Your task to perform on an android device: Go to sound settings Image 0: 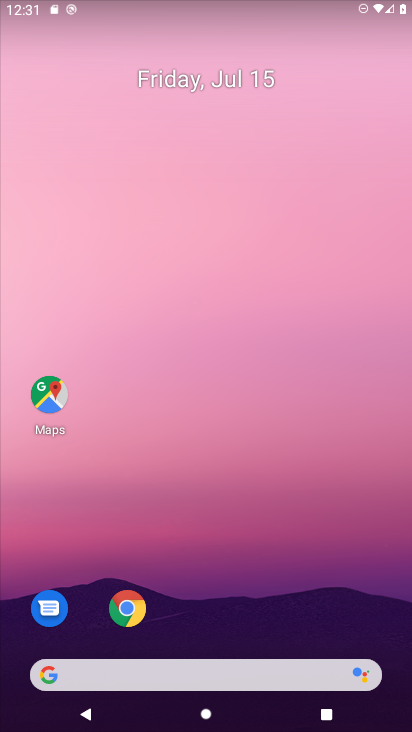
Step 0: drag from (280, 675) to (320, 59)
Your task to perform on an android device: Go to sound settings Image 1: 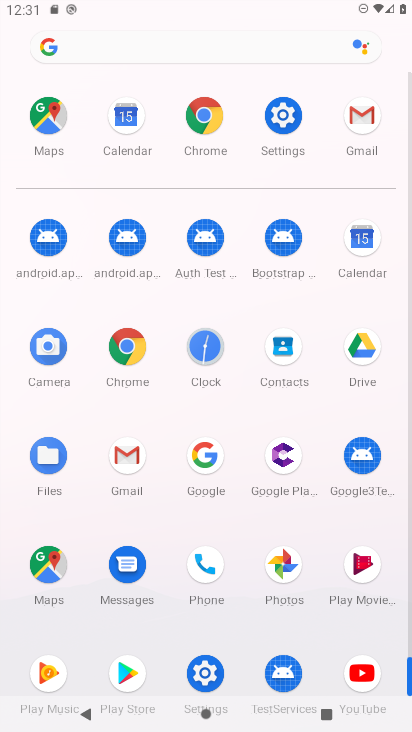
Step 1: click (279, 106)
Your task to perform on an android device: Go to sound settings Image 2: 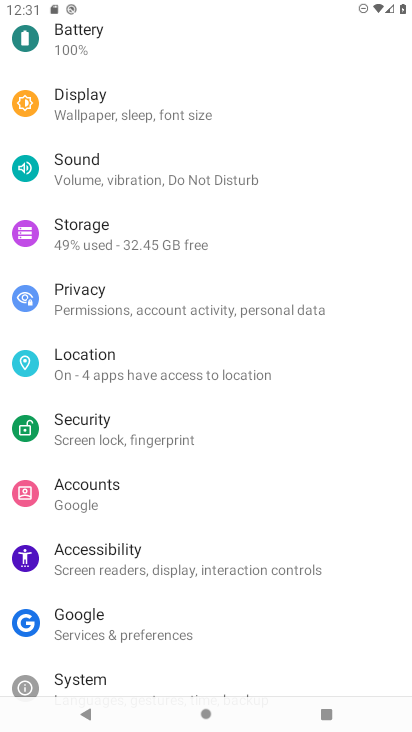
Step 2: click (142, 182)
Your task to perform on an android device: Go to sound settings Image 3: 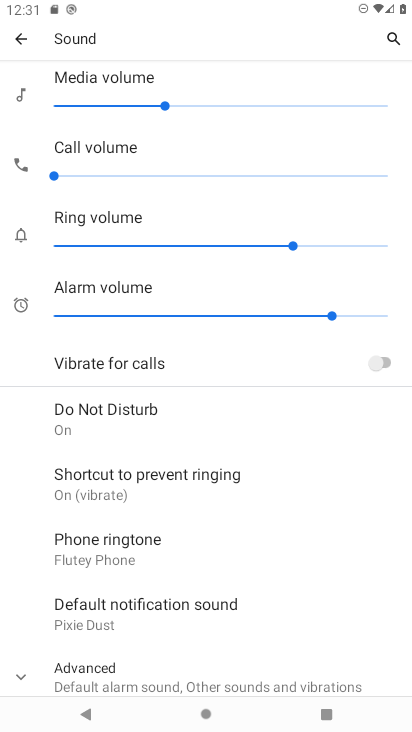
Step 3: task complete